Your task to perform on an android device: What's the weather? Image 0: 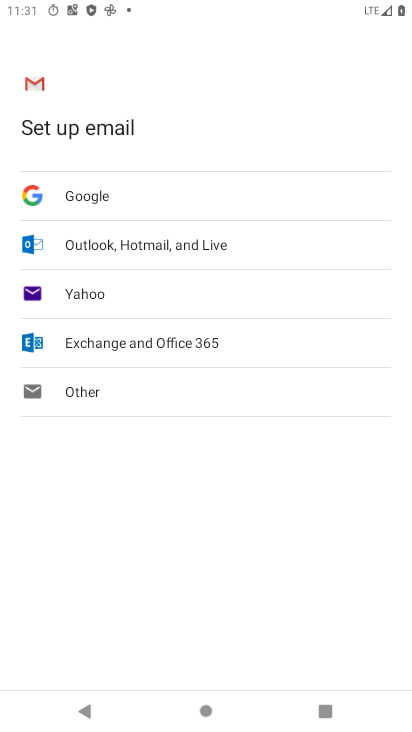
Step 0: press home button
Your task to perform on an android device: What's the weather? Image 1: 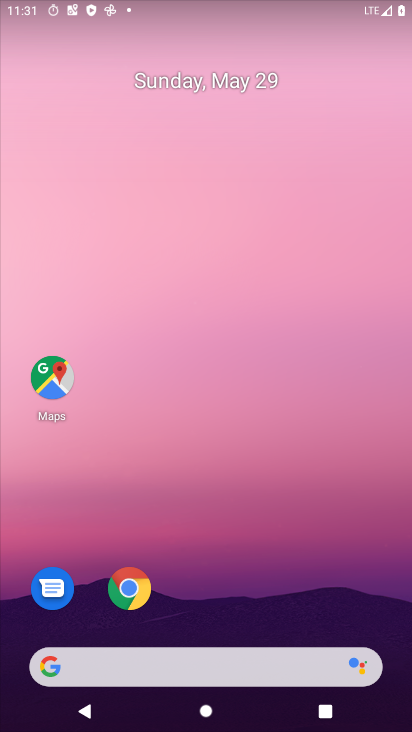
Step 1: drag from (244, 612) to (348, 137)
Your task to perform on an android device: What's the weather? Image 2: 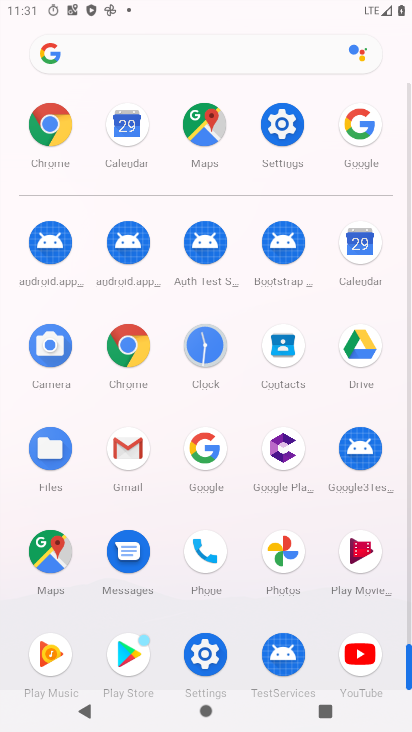
Step 2: click (198, 440)
Your task to perform on an android device: What's the weather? Image 3: 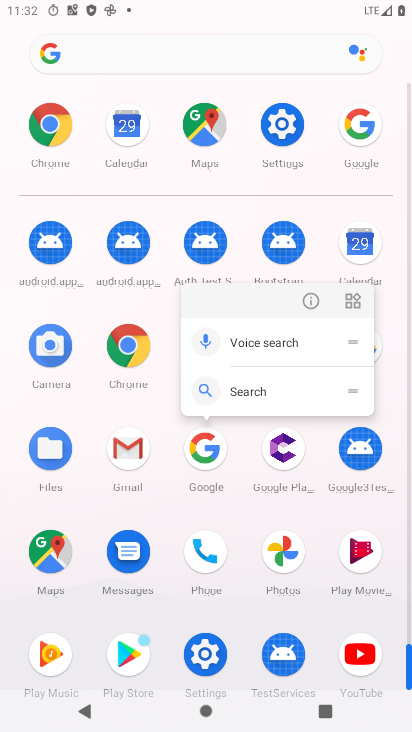
Step 3: click (198, 455)
Your task to perform on an android device: What's the weather? Image 4: 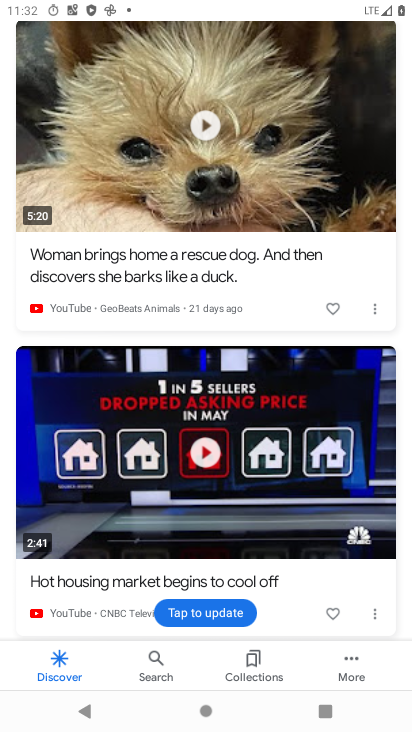
Step 4: drag from (127, 251) to (144, 622)
Your task to perform on an android device: What's the weather? Image 5: 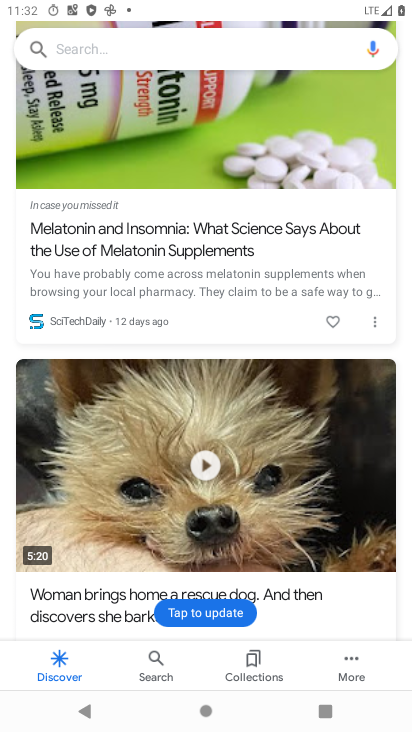
Step 5: drag from (157, 161) to (175, 726)
Your task to perform on an android device: What's the weather? Image 6: 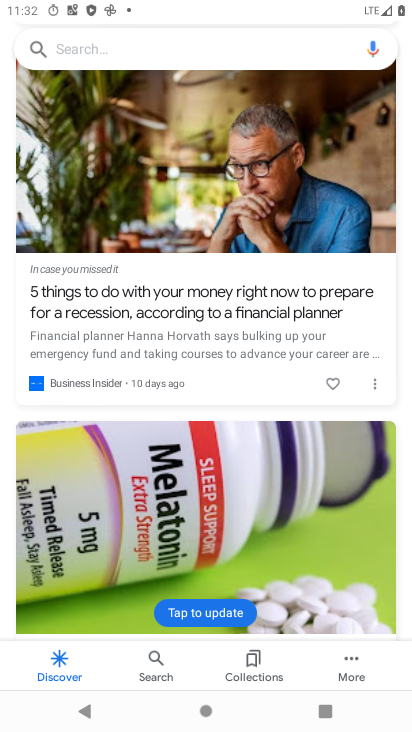
Step 6: drag from (201, 257) to (194, 731)
Your task to perform on an android device: What's the weather? Image 7: 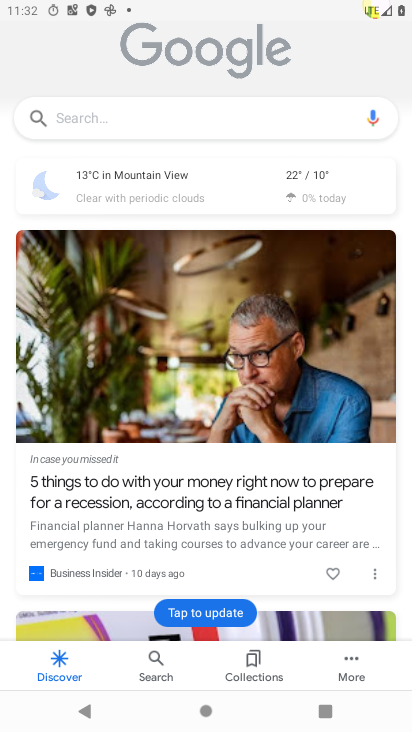
Step 7: click (161, 193)
Your task to perform on an android device: What's the weather? Image 8: 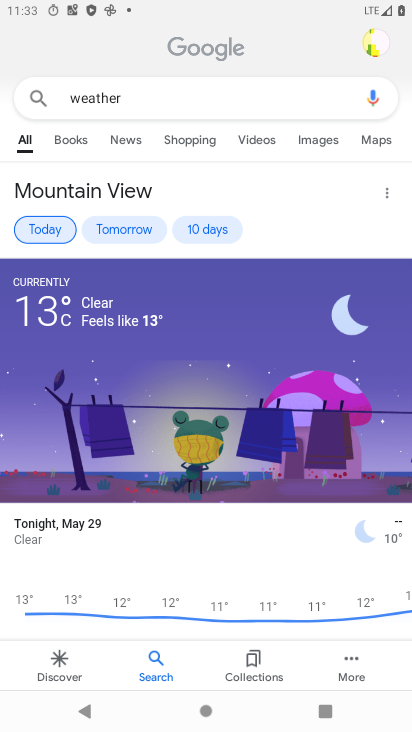
Step 8: task complete